Your task to perform on an android device: Go to display settings Image 0: 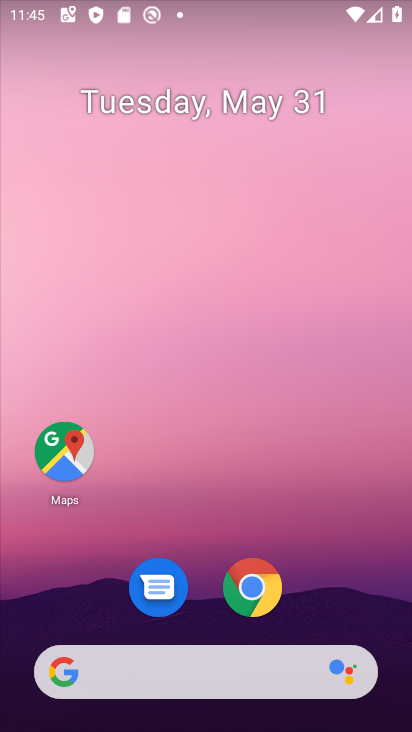
Step 0: drag from (369, 619) to (368, 217)
Your task to perform on an android device: Go to display settings Image 1: 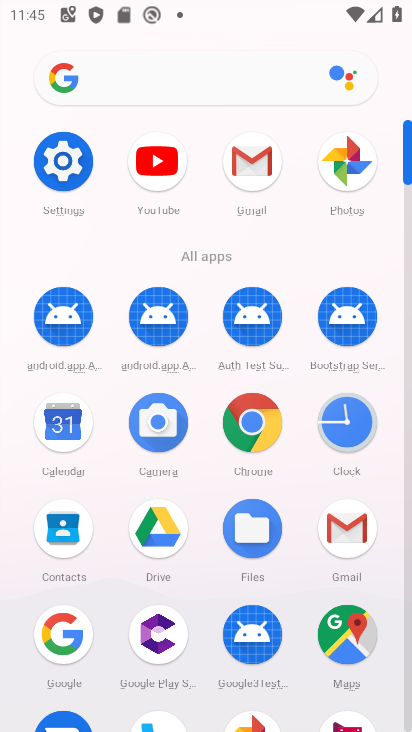
Step 1: click (78, 169)
Your task to perform on an android device: Go to display settings Image 2: 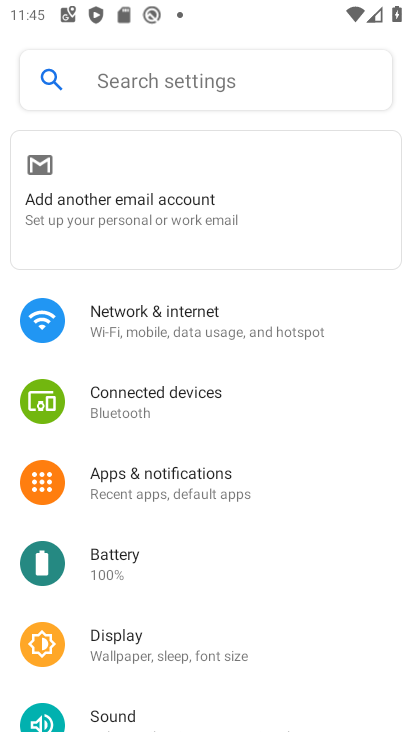
Step 2: click (165, 644)
Your task to perform on an android device: Go to display settings Image 3: 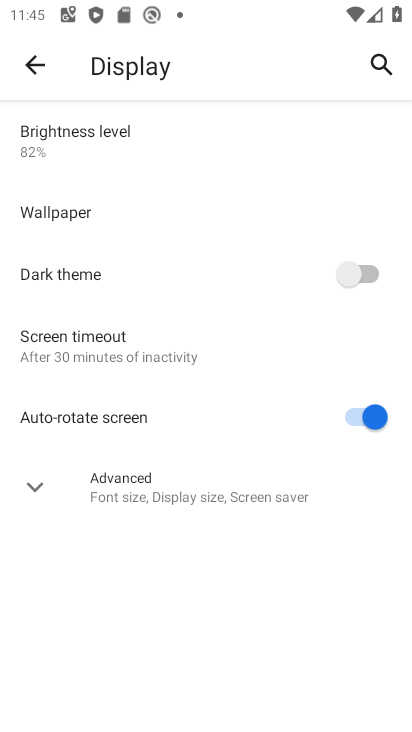
Step 3: click (165, 644)
Your task to perform on an android device: Go to display settings Image 4: 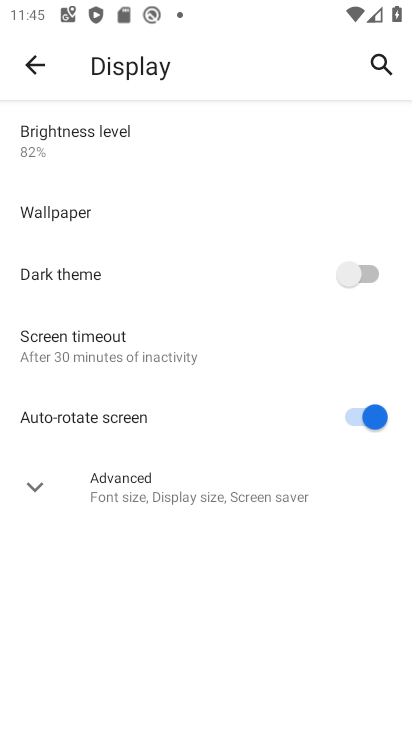
Step 4: task complete